Your task to perform on an android device: open app "ColorNote Notepad Notes" Image 0: 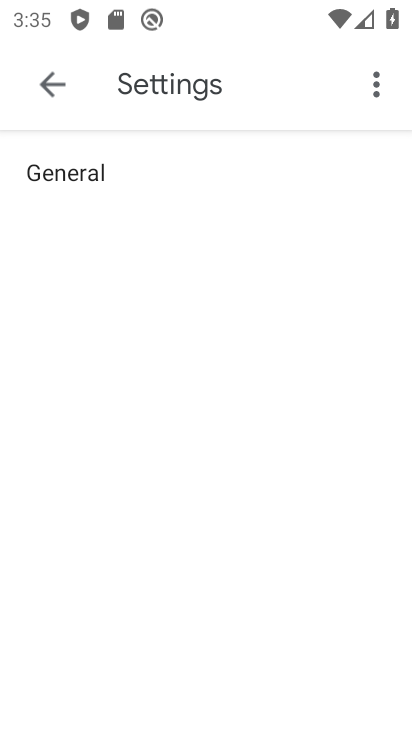
Step 0: press home button
Your task to perform on an android device: open app "ColorNote Notepad Notes" Image 1: 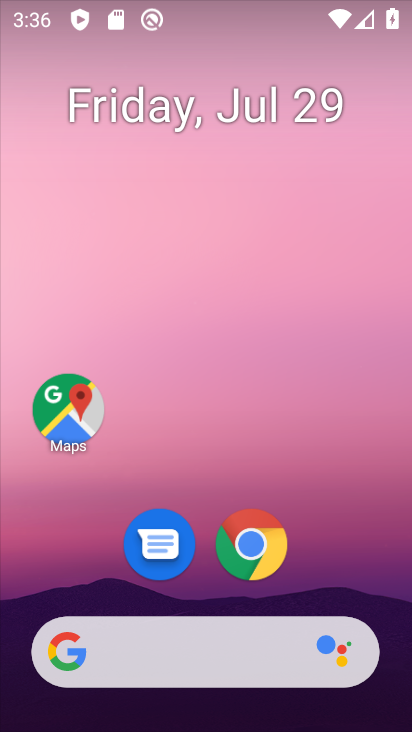
Step 1: task complete